Your task to perform on an android device: change text size in settings app Image 0: 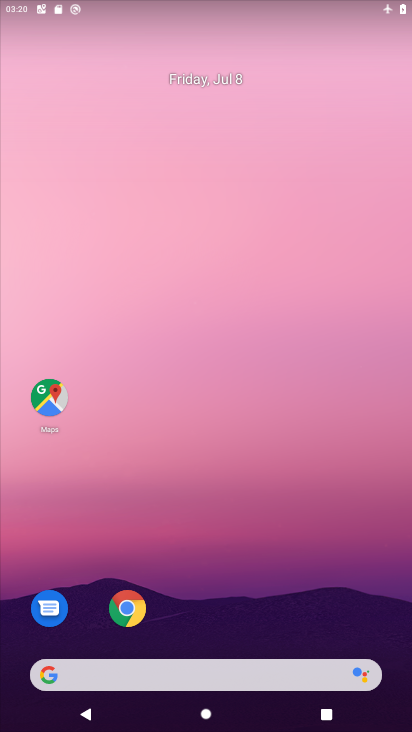
Step 0: drag from (285, 637) to (266, 298)
Your task to perform on an android device: change text size in settings app Image 1: 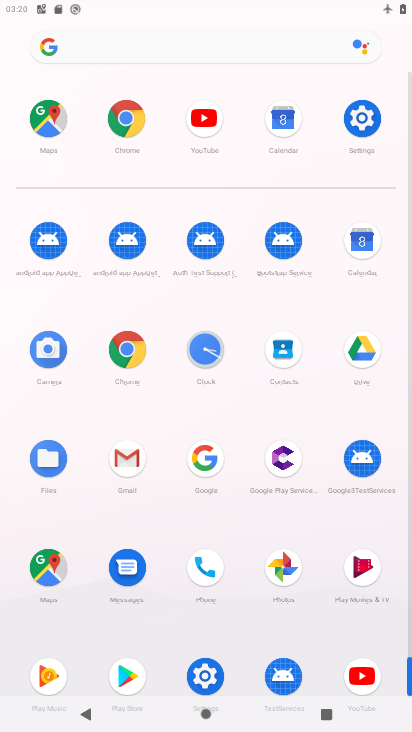
Step 1: click (371, 109)
Your task to perform on an android device: change text size in settings app Image 2: 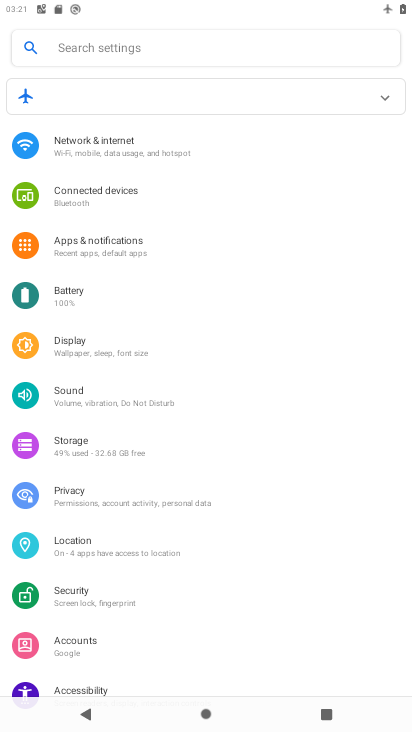
Step 2: drag from (114, 633) to (127, 366)
Your task to perform on an android device: change text size in settings app Image 3: 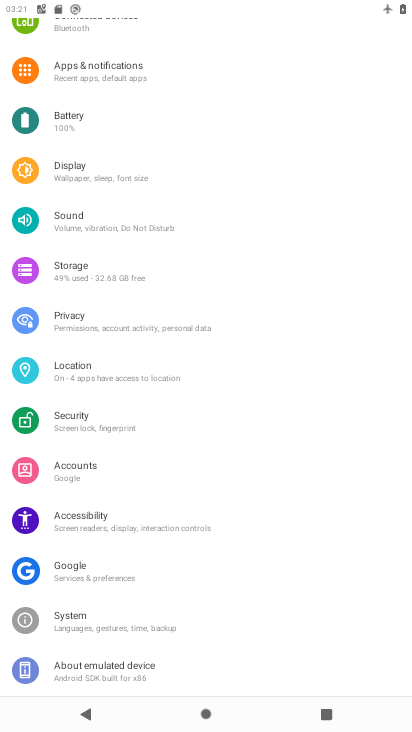
Step 3: click (91, 518)
Your task to perform on an android device: change text size in settings app Image 4: 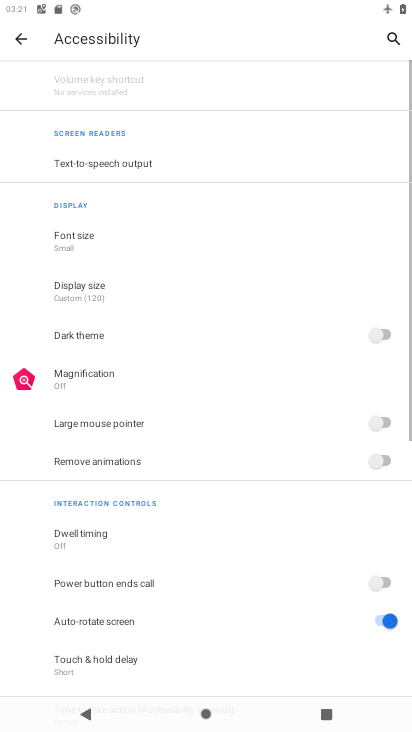
Step 4: click (87, 240)
Your task to perform on an android device: change text size in settings app Image 5: 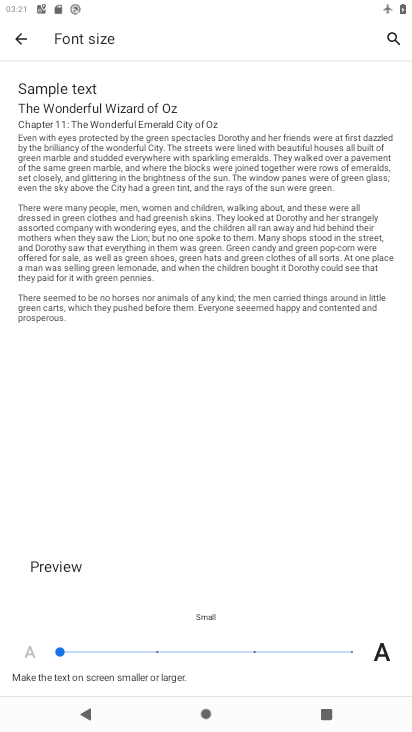
Step 5: click (137, 659)
Your task to perform on an android device: change text size in settings app Image 6: 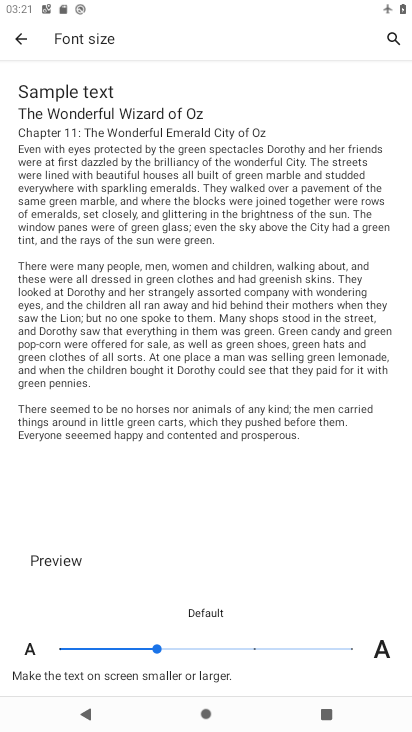
Step 6: task complete